Your task to perform on an android device: turn on wifi Image 0: 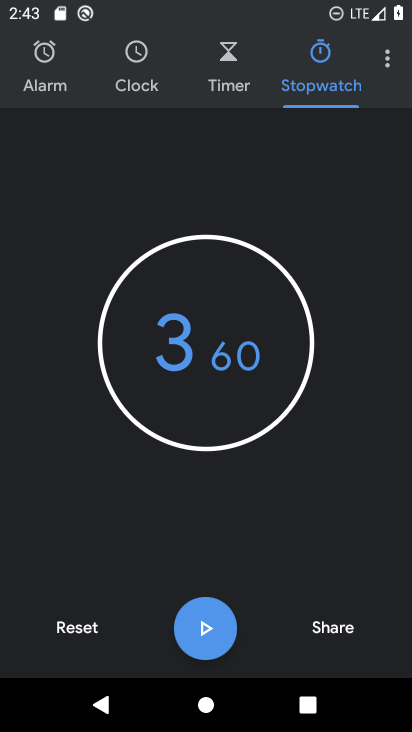
Step 0: press home button
Your task to perform on an android device: turn on wifi Image 1: 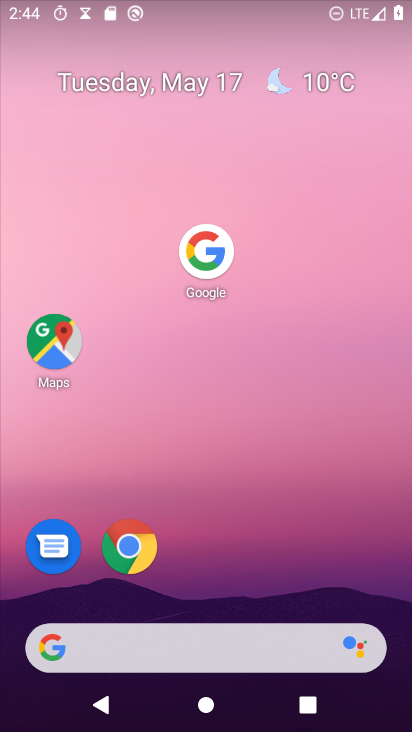
Step 1: drag from (220, 645) to (326, 40)
Your task to perform on an android device: turn on wifi Image 2: 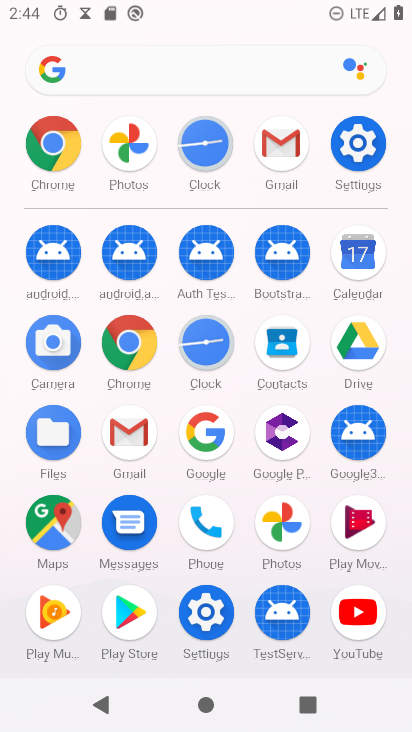
Step 2: click (354, 144)
Your task to perform on an android device: turn on wifi Image 3: 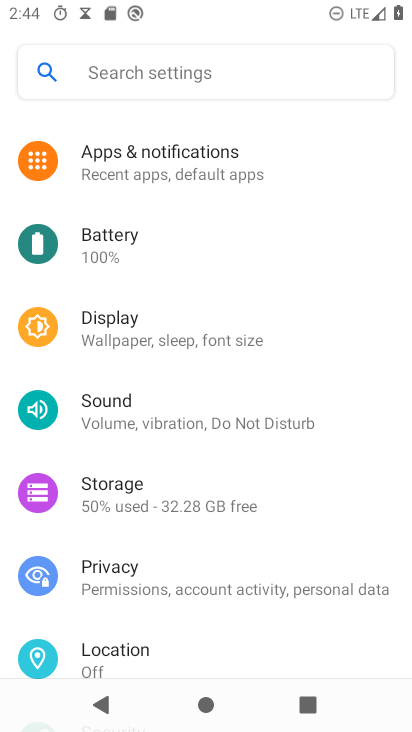
Step 3: drag from (343, 166) to (281, 551)
Your task to perform on an android device: turn on wifi Image 4: 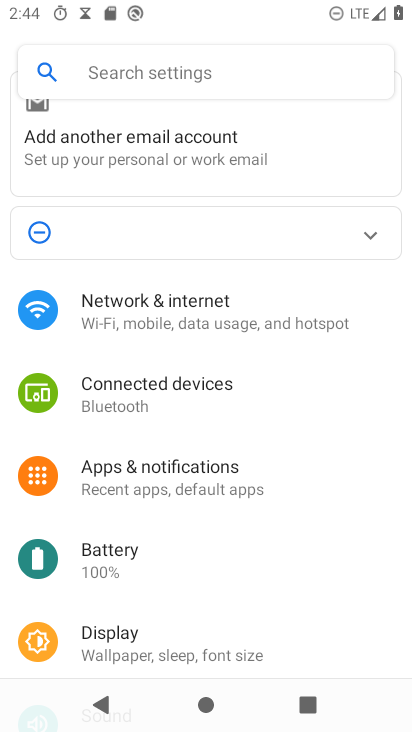
Step 4: click (177, 310)
Your task to perform on an android device: turn on wifi Image 5: 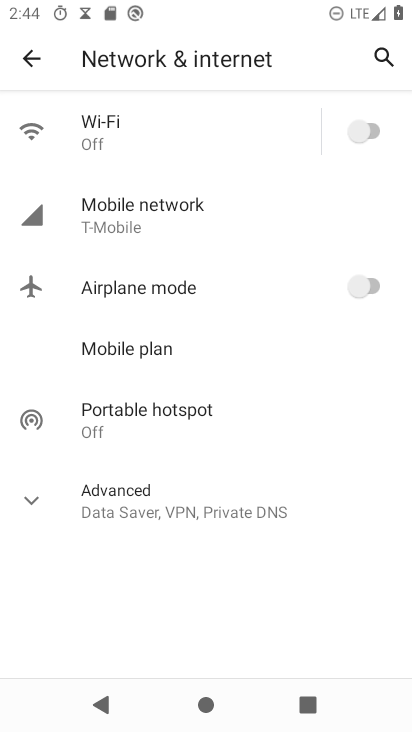
Step 5: click (377, 127)
Your task to perform on an android device: turn on wifi Image 6: 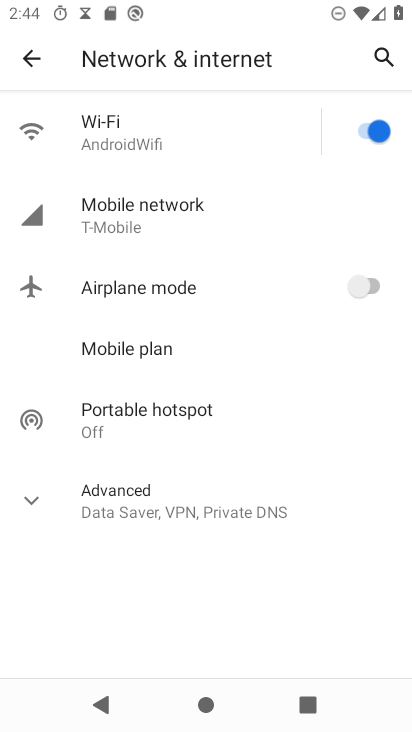
Step 6: task complete